Your task to perform on an android device: toggle translation in the chrome app Image 0: 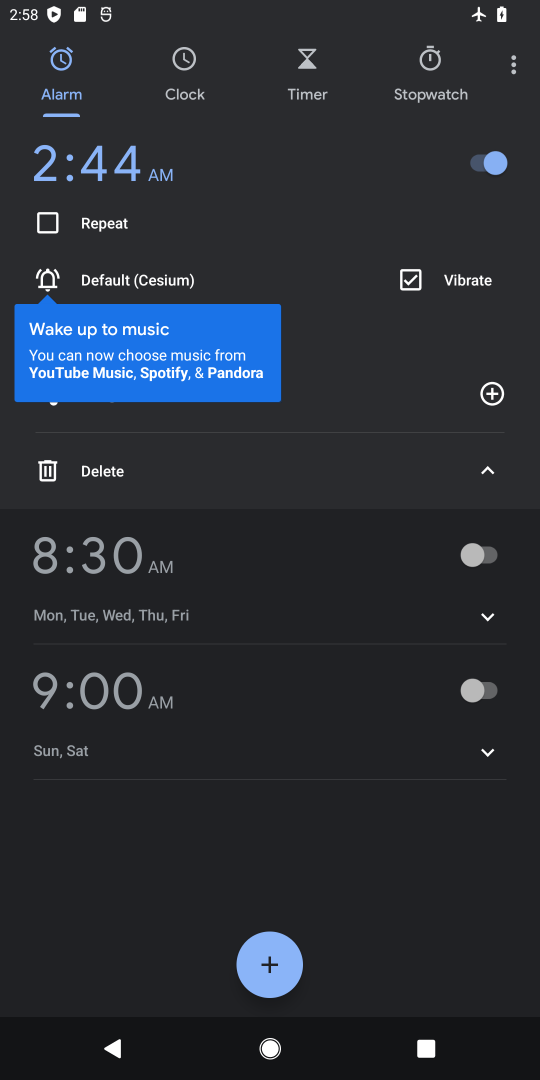
Step 0: press home button
Your task to perform on an android device: toggle translation in the chrome app Image 1: 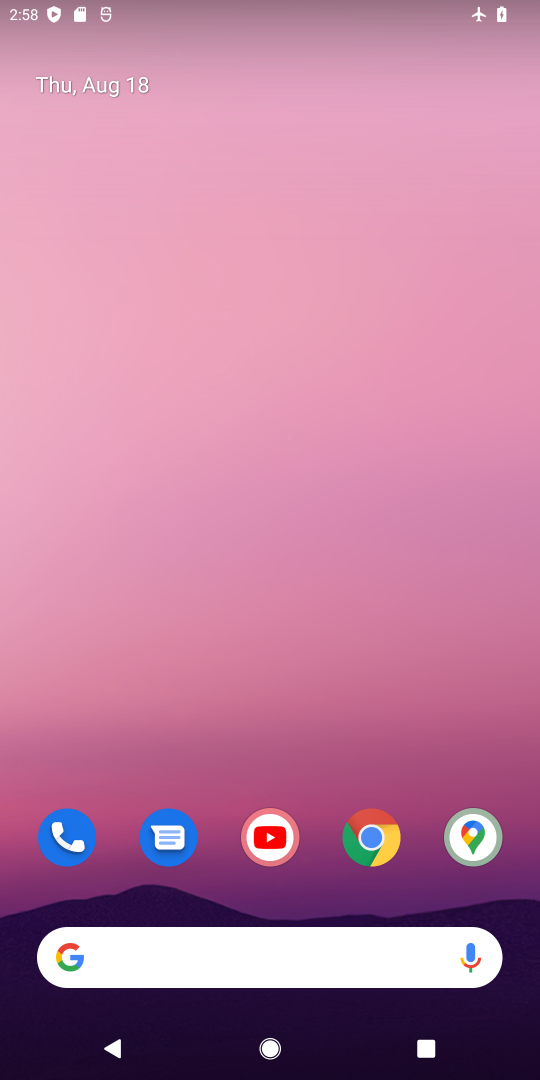
Step 1: drag from (332, 782) to (363, 104)
Your task to perform on an android device: toggle translation in the chrome app Image 2: 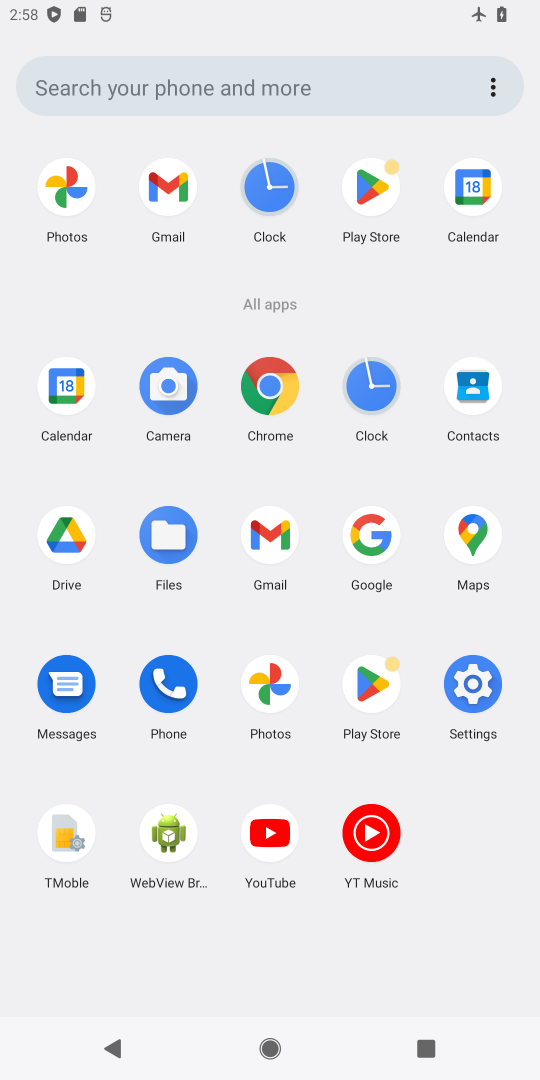
Step 2: click (266, 382)
Your task to perform on an android device: toggle translation in the chrome app Image 3: 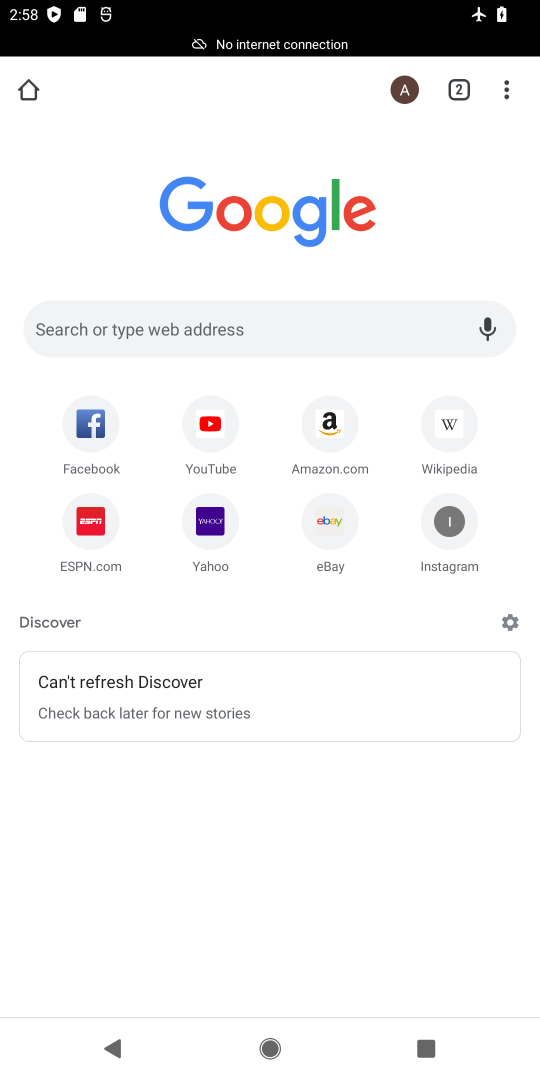
Step 3: drag from (504, 84) to (339, 658)
Your task to perform on an android device: toggle translation in the chrome app Image 4: 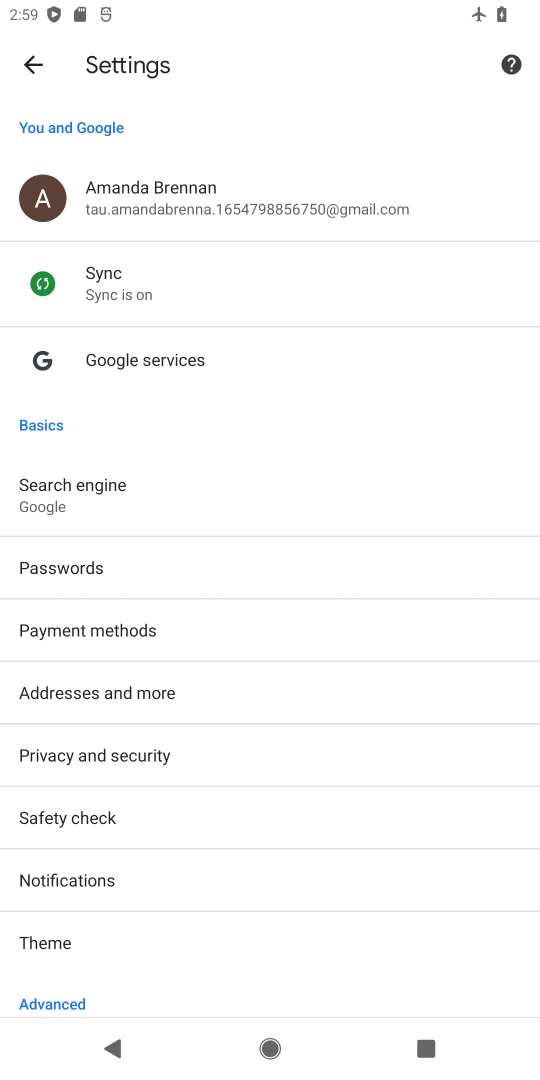
Step 4: drag from (153, 950) to (278, 213)
Your task to perform on an android device: toggle translation in the chrome app Image 5: 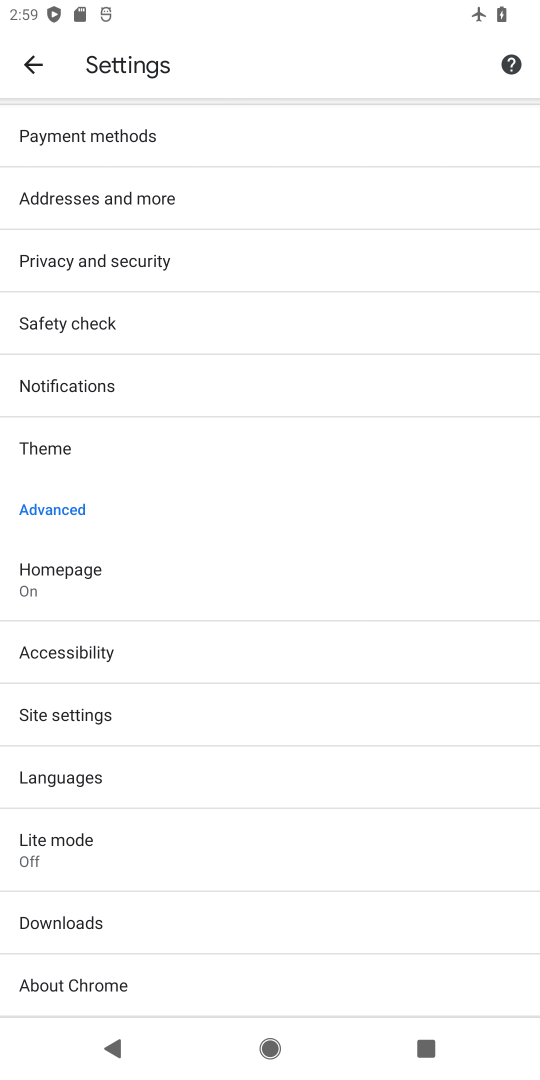
Step 5: click (77, 773)
Your task to perform on an android device: toggle translation in the chrome app Image 6: 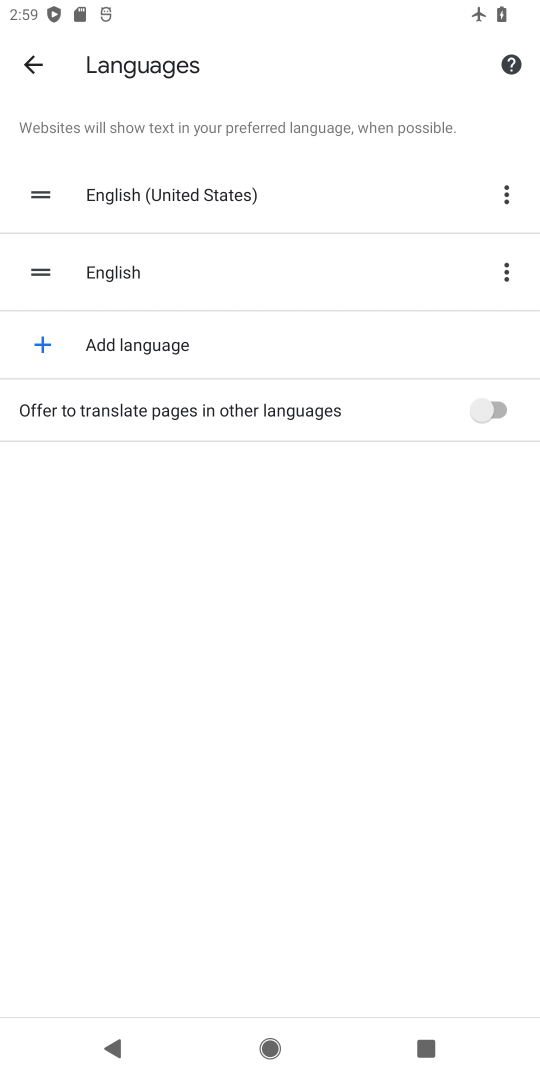
Step 6: click (480, 405)
Your task to perform on an android device: toggle translation in the chrome app Image 7: 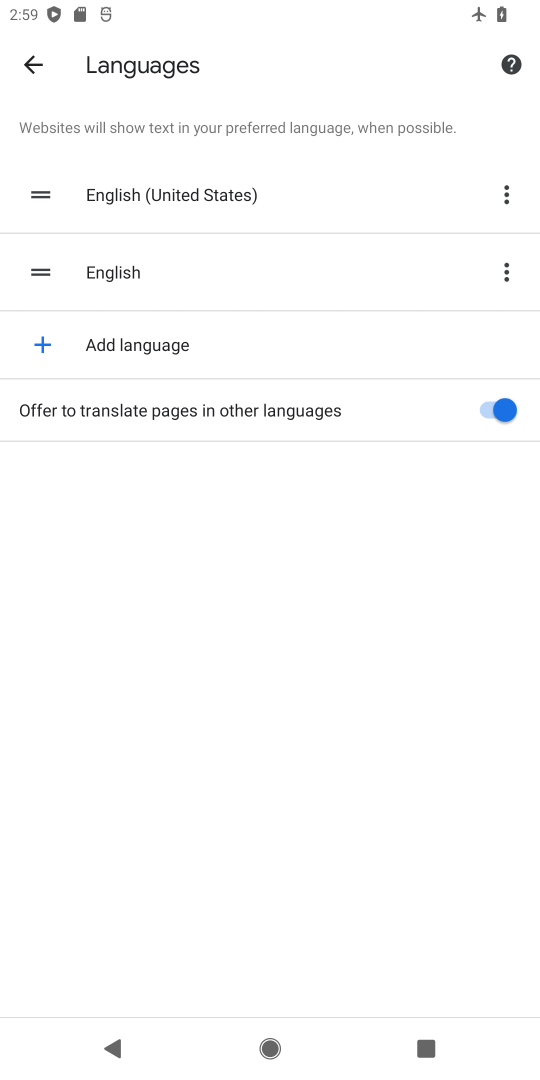
Step 7: task complete